Your task to perform on an android device: What's on my calendar tomorrow? Image 0: 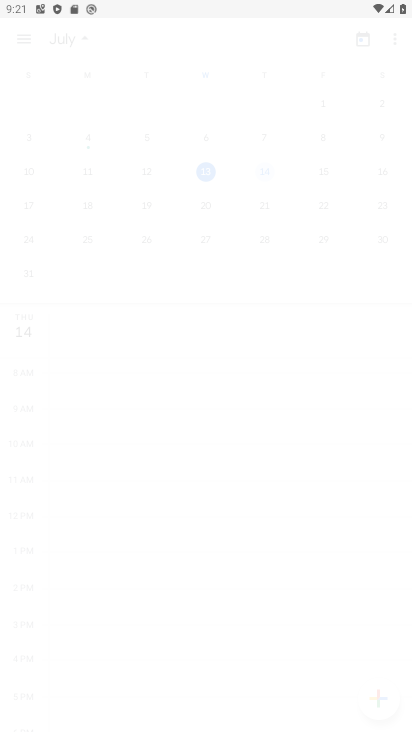
Step 0: drag from (278, 506) to (397, 16)
Your task to perform on an android device: What's on my calendar tomorrow? Image 1: 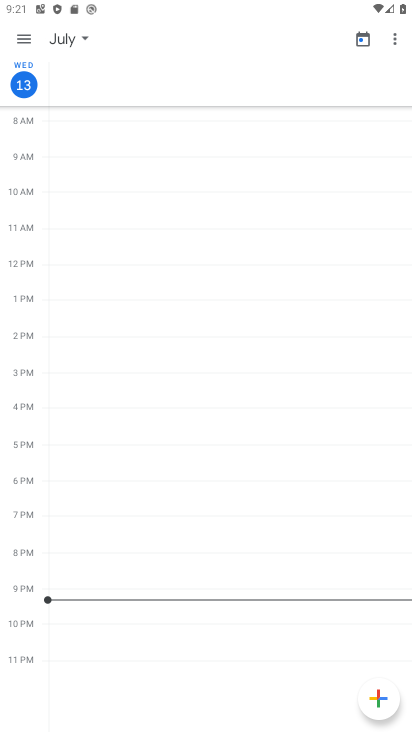
Step 1: press home button
Your task to perform on an android device: What's on my calendar tomorrow? Image 2: 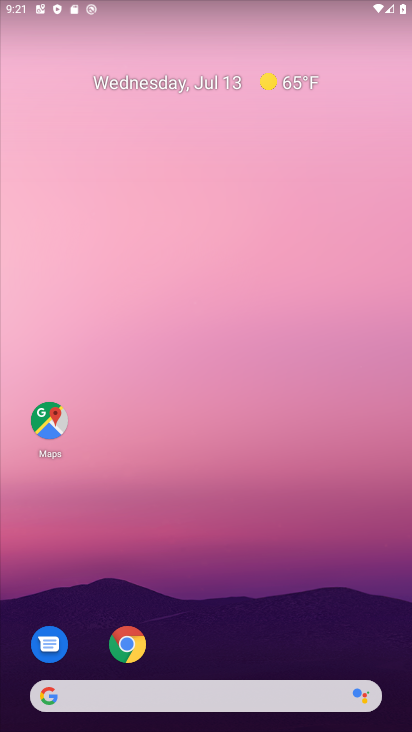
Step 2: drag from (266, 624) to (260, 14)
Your task to perform on an android device: What's on my calendar tomorrow? Image 3: 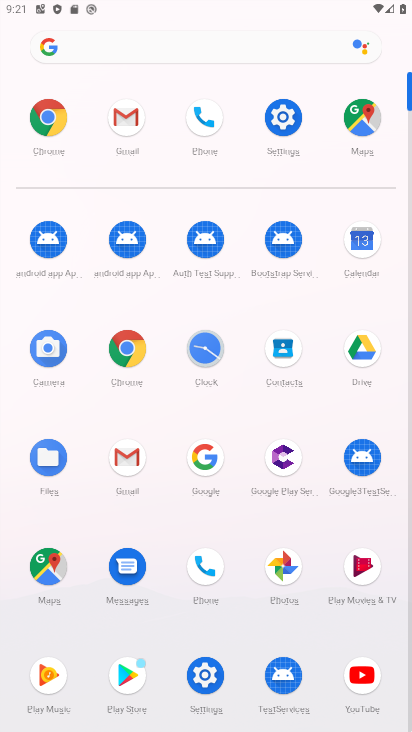
Step 3: click (298, 131)
Your task to perform on an android device: What's on my calendar tomorrow? Image 4: 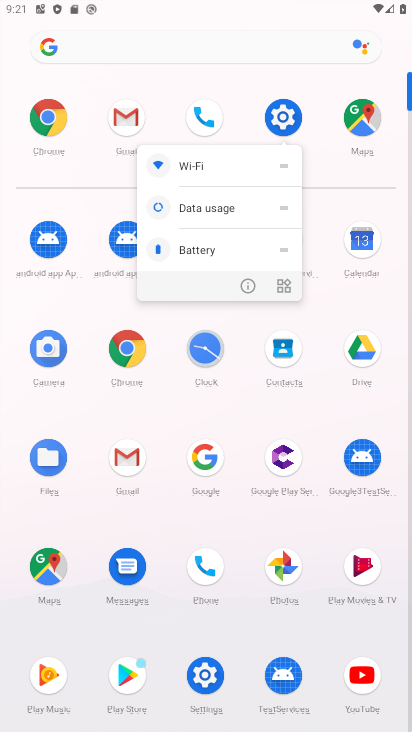
Step 4: click (379, 242)
Your task to perform on an android device: What's on my calendar tomorrow? Image 5: 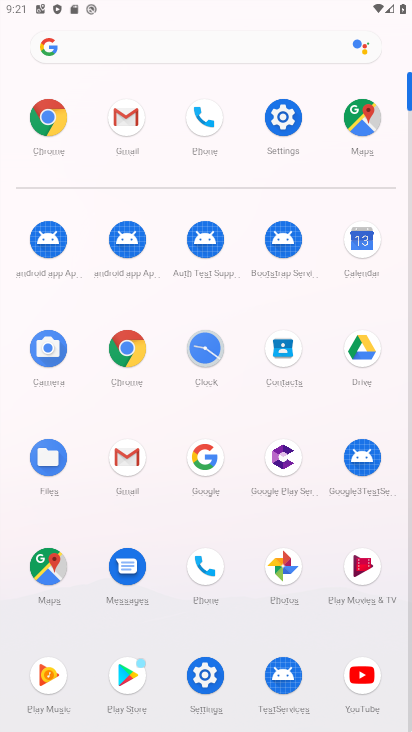
Step 5: click (354, 244)
Your task to perform on an android device: What's on my calendar tomorrow? Image 6: 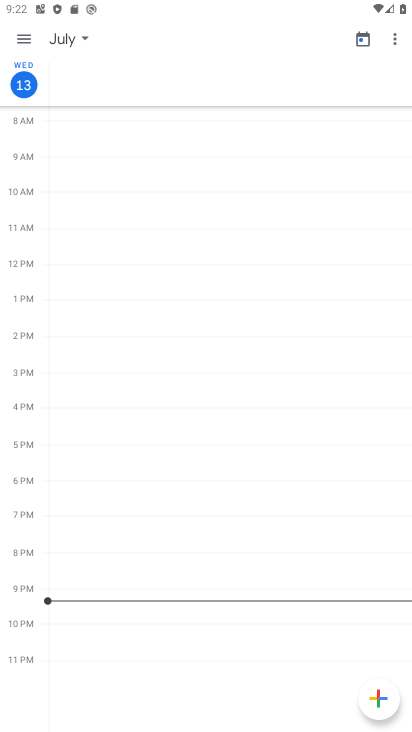
Step 6: click (66, 33)
Your task to perform on an android device: What's on my calendar tomorrow? Image 7: 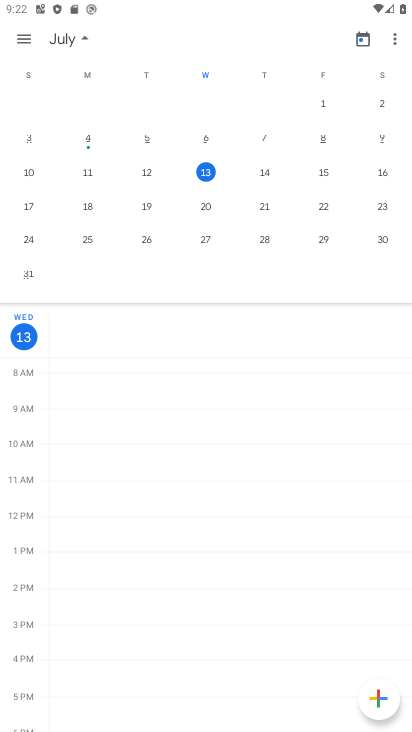
Step 7: click (263, 180)
Your task to perform on an android device: What's on my calendar tomorrow? Image 8: 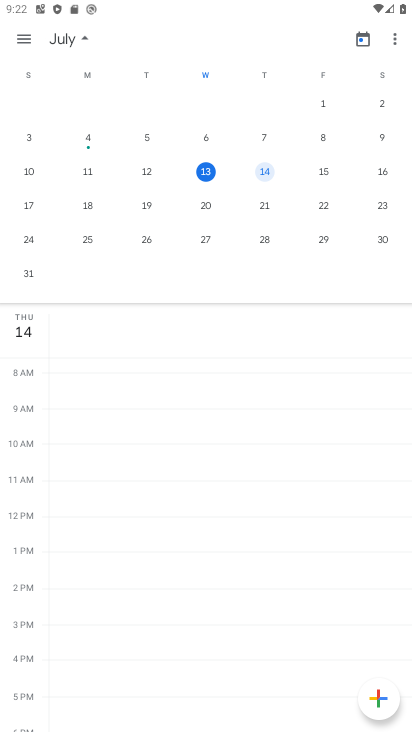
Step 8: task complete